Your task to perform on an android device: snooze an email in the gmail app Image 0: 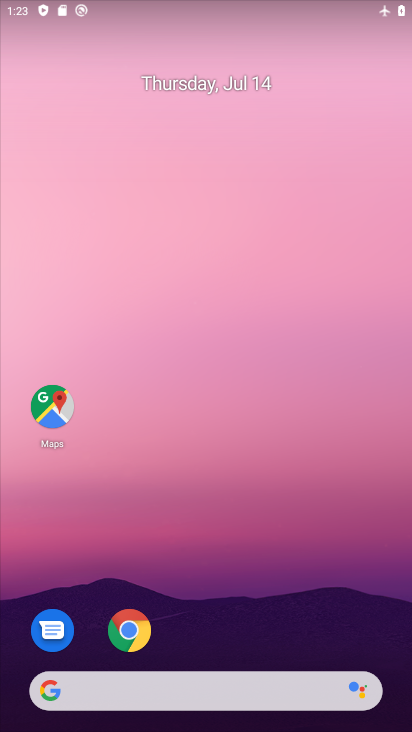
Step 0: drag from (231, 694) to (186, 80)
Your task to perform on an android device: snooze an email in the gmail app Image 1: 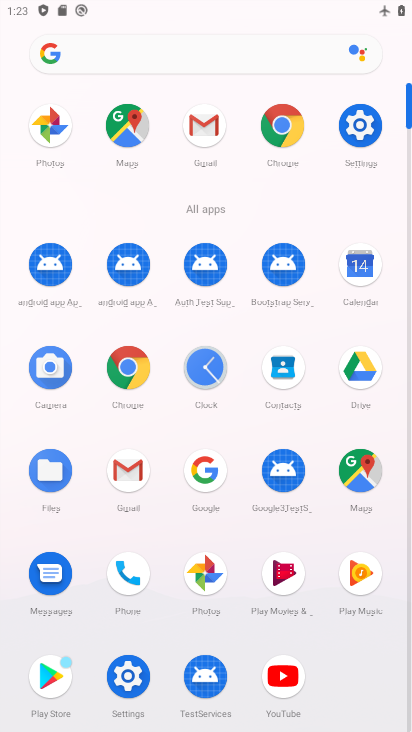
Step 1: click (203, 131)
Your task to perform on an android device: snooze an email in the gmail app Image 2: 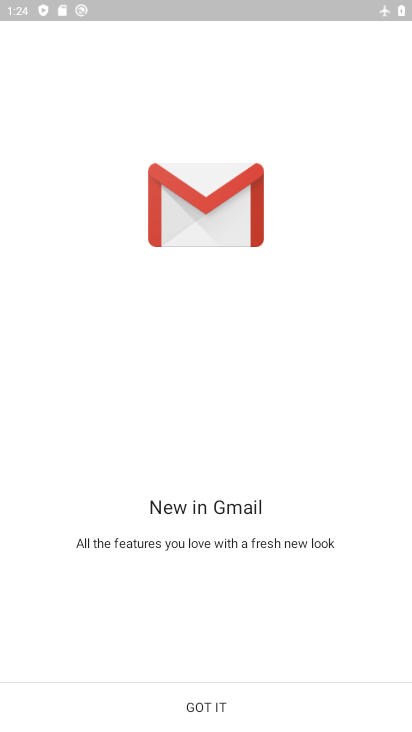
Step 2: click (177, 704)
Your task to perform on an android device: snooze an email in the gmail app Image 3: 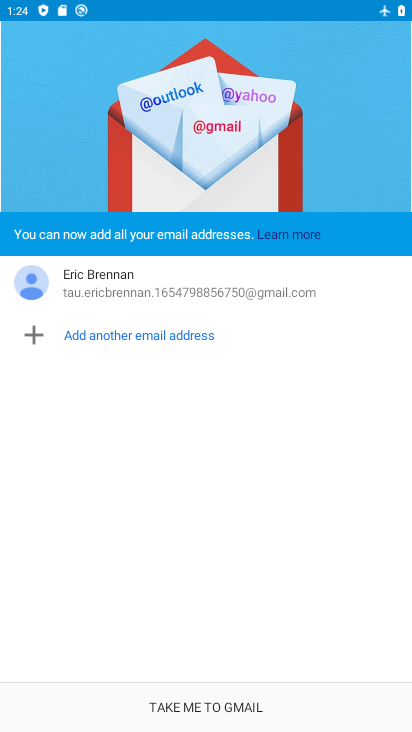
Step 3: click (200, 697)
Your task to perform on an android device: snooze an email in the gmail app Image 4: 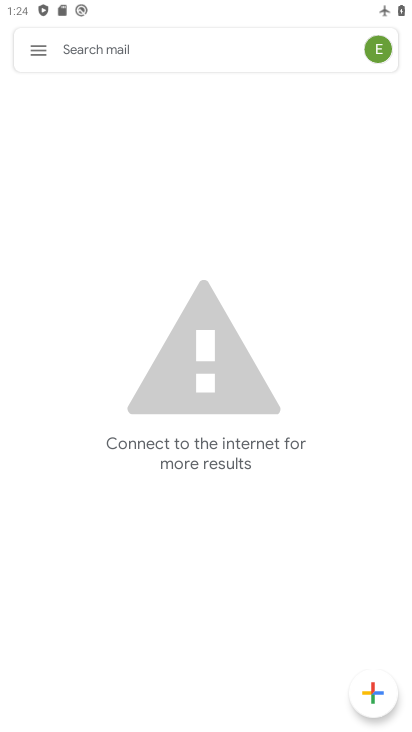
Step 4: click (38, 55)
Your task to perform on an android device: snooze an email in the gmail app Image 5: 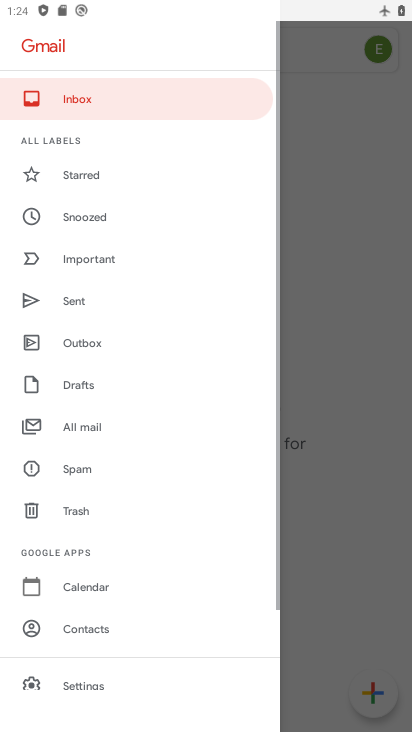
Step 5: task complete